Your task to perform on an android device: empty trash in the gmail app Image 0: 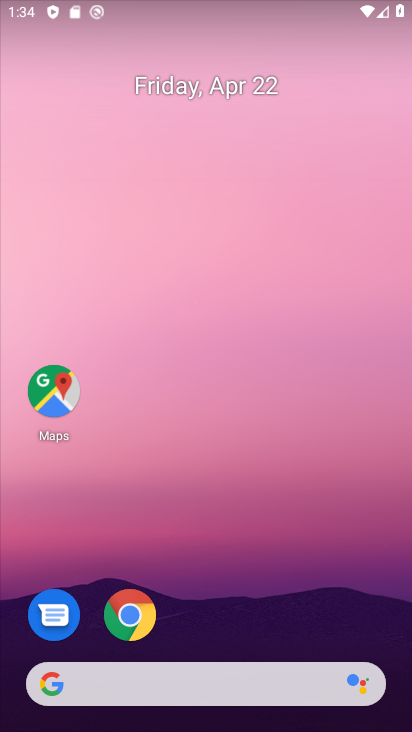
Step 0: drag from (192, 652) to (320, 22)
Your task to perform on an android device: empty trash in the gmail app Image 1: 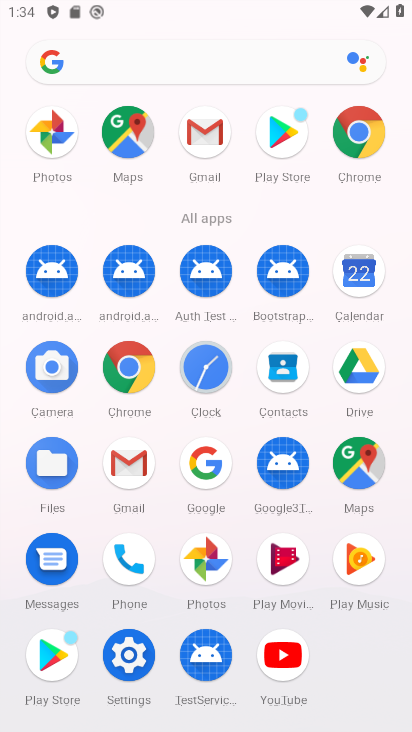
Step 1: click (124, 471)
Your task to perform on an android device: empty trash in the gmail app Image 2: 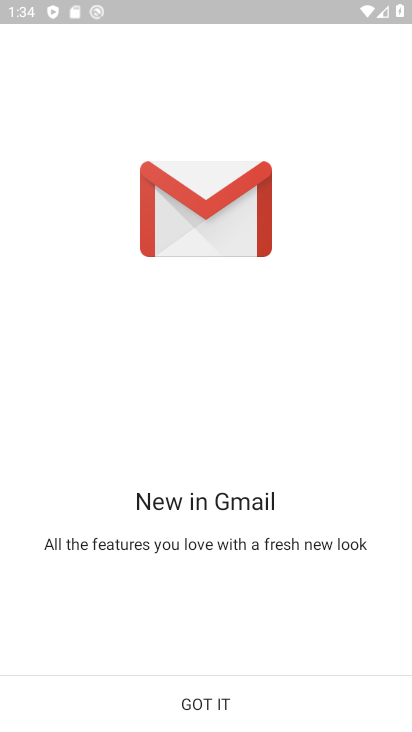
Step 2: click (210, 707)
Your task to perform on an android device: empty trash in the gmail app Image 3: 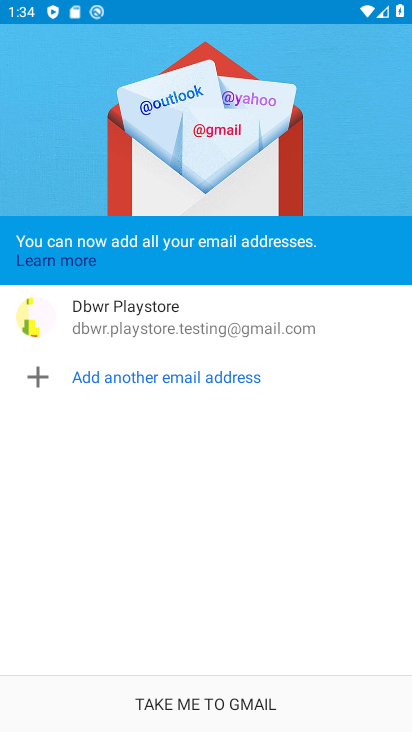
Step 3: click (226, 708)
Your task to perform on an android device: empty trash in the gmail app Image 4: 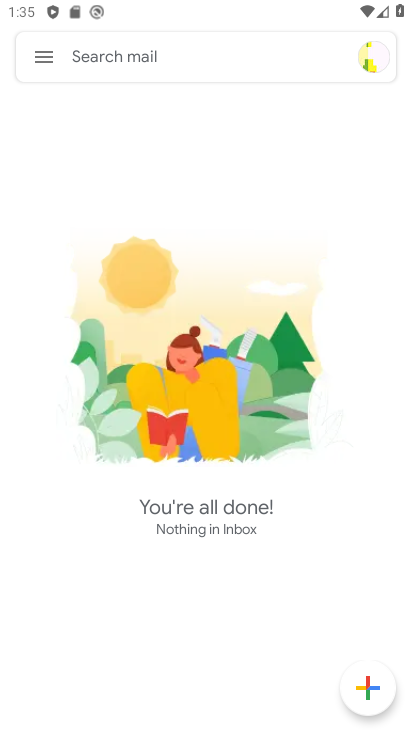
Step 4: click (43, 56)
Your task to perform on an android device: empty trash in the gmail app Image 5: 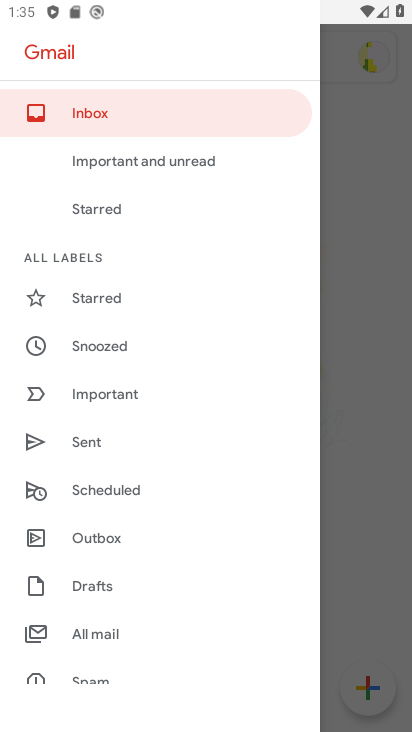
Step 5: drag from (157, 583) to (225, 257)
Your task to perform on an android device: empty trash in the gmail app Image 6: 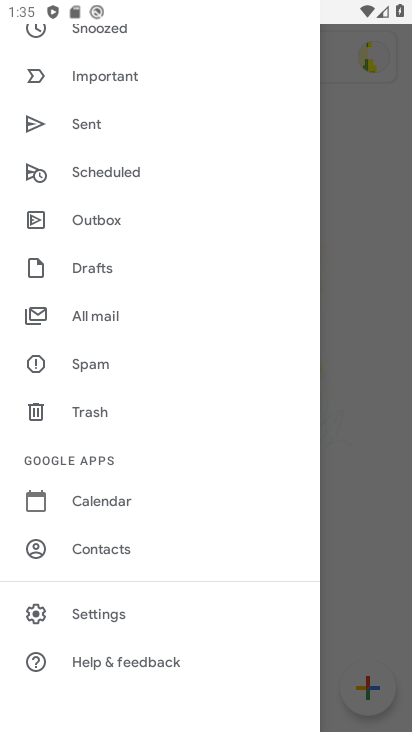
Step 6: click (126, 406)
Your task to perform on an android device: empty trash in the gmail app Image 7: 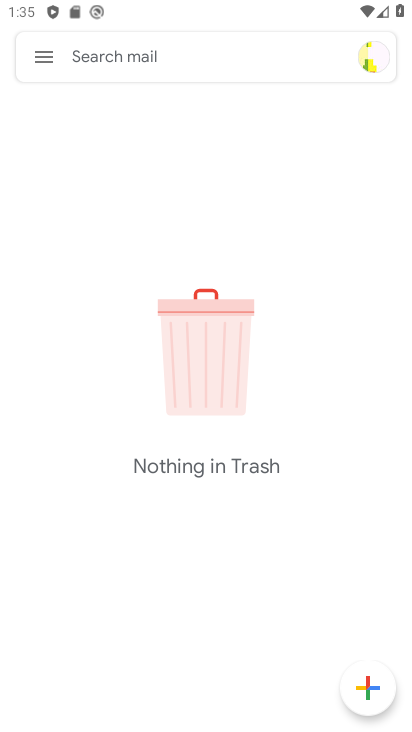
Step 7: task complete